Your task to perform on an android device: What's on my calendar today? Image 0: 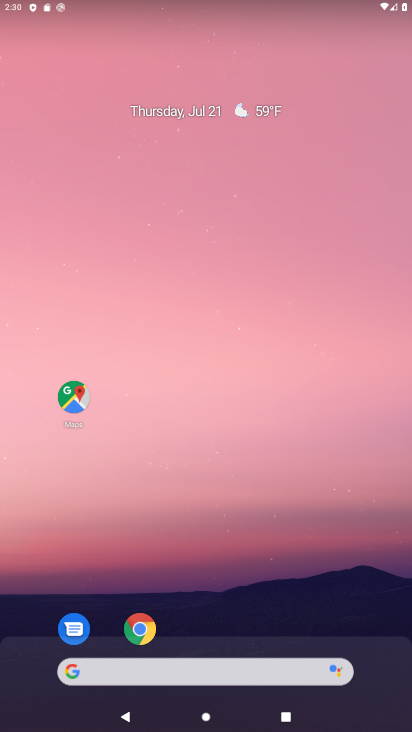
Step 0: drag from (237, 670) to (195, 102)
Your task to perform on an android device: What's on my calendar today? Image 1: 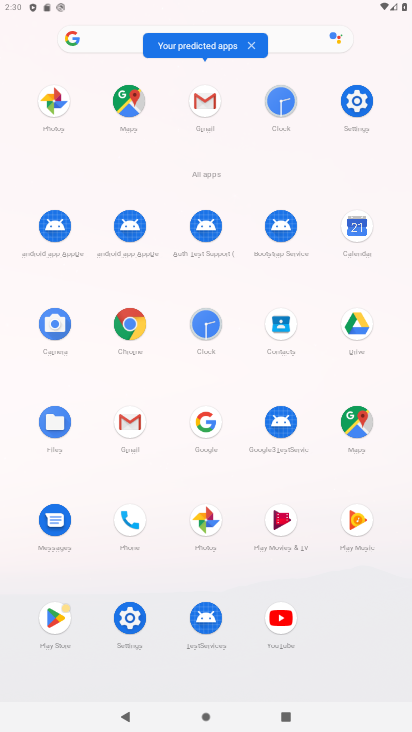
Step 1: click (353, 221)
Your task to perform on an android device: What's on my calendar today? Image 2: 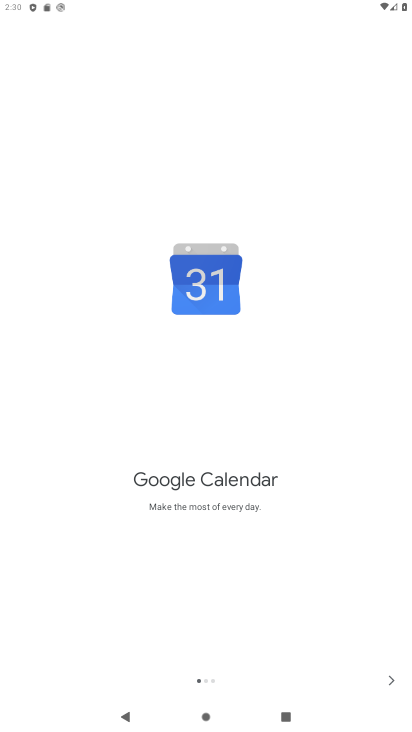
Step 2: click (392, 676)
Your task to perform on an android device: What's on my calendar today? Image 3: 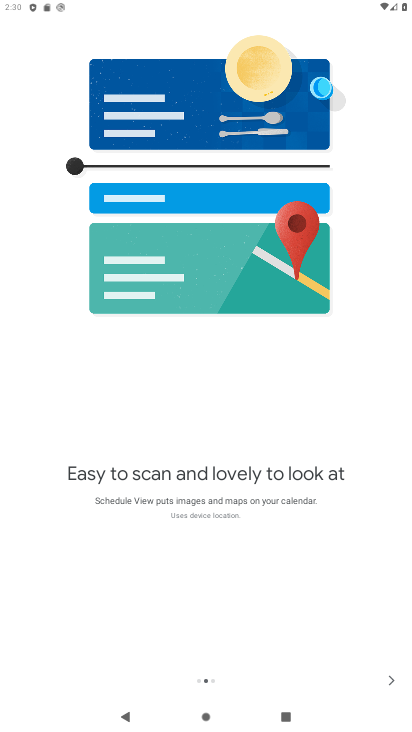
Step 3: click (392, 676)
Your task to perform on an android device: What's on my calendar today? Image 4: 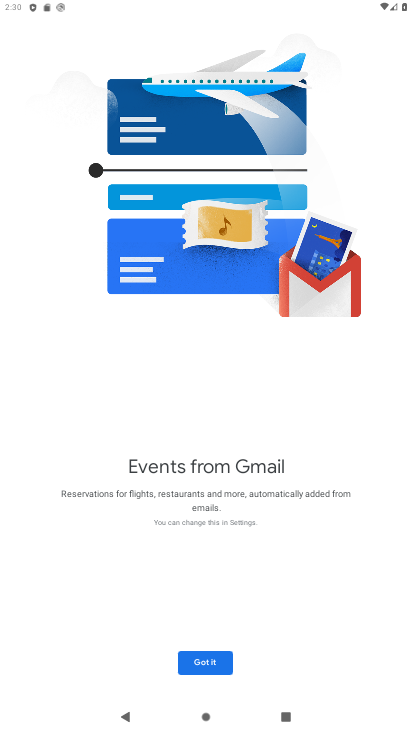
Step 4: click (210, 666)
Your task to perform on an android device: What's on my calendar today? Image 5: 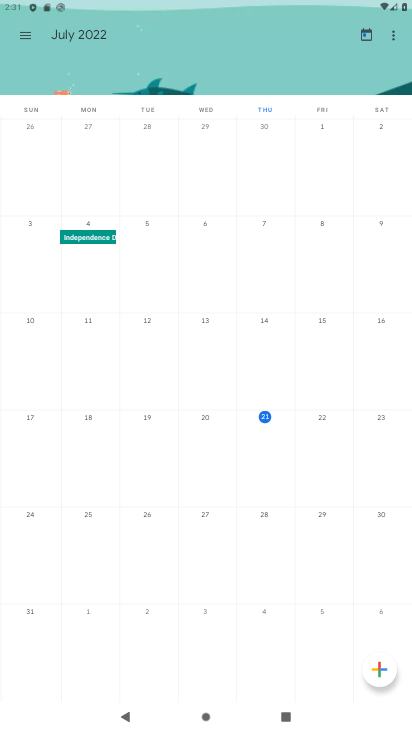
Step 5: click (265, 416)
Your task to perform on an android device: What's on my calendar today? Image 6: 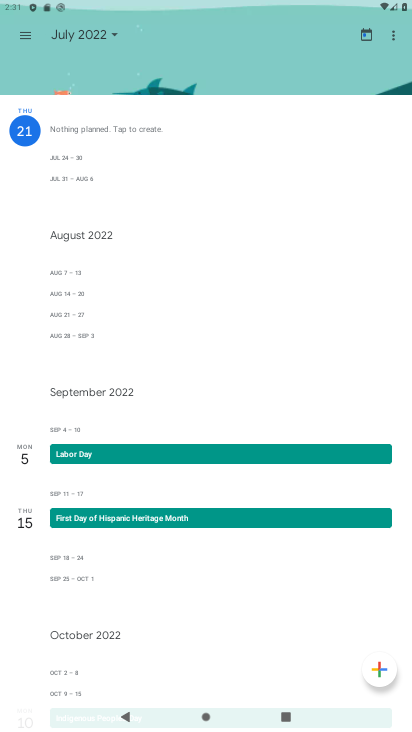
Step 6: task complete